Your task to perform on an android device: What's the news in the Dominican Republic? Image 0: 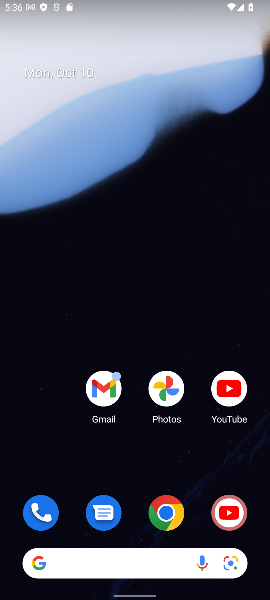
Step 0: click (102, 568)
Your task to perform on an android device: What's the news in the Dominican Republic? Image 1: 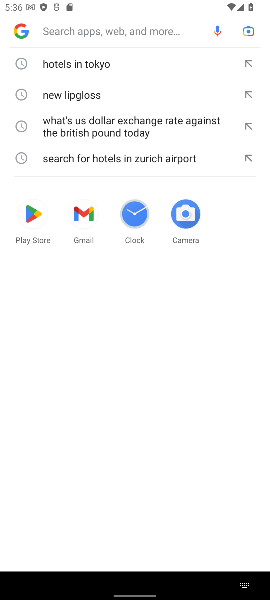
Step 1: type "What's the news in the Dominican Republic"
Your task to perform on an android device: What's the news in the Dominican Republic? Image 2: 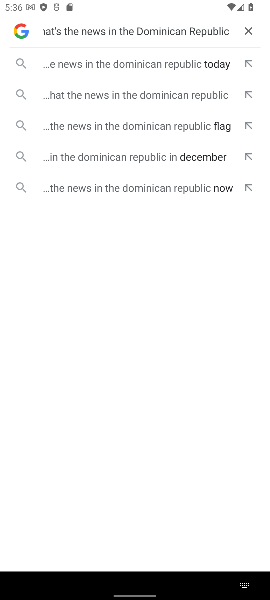
Step 2: click (105, 57)
Your task to perform on an android device: What's the news in the Dominican Republic? Image 3: 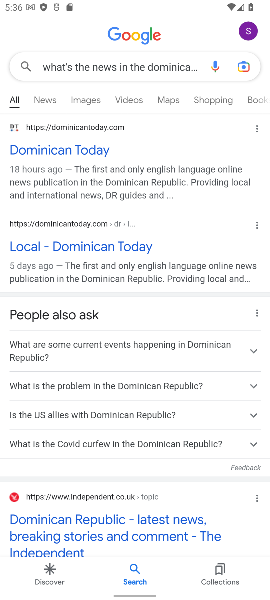
Step 3: task complete